Your task to perform on an android device: toggle translation in the chrome app Image 0: 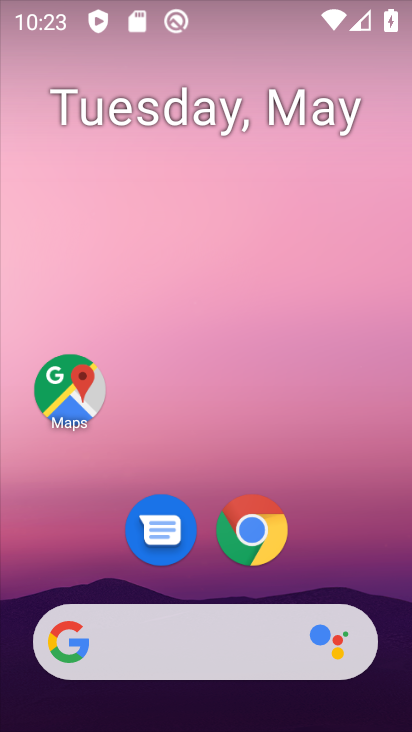
Step 0: drag from (335, 677) to (126, 148)
Your task to perform on an android device: toggle translation in the chrome app Image 1: 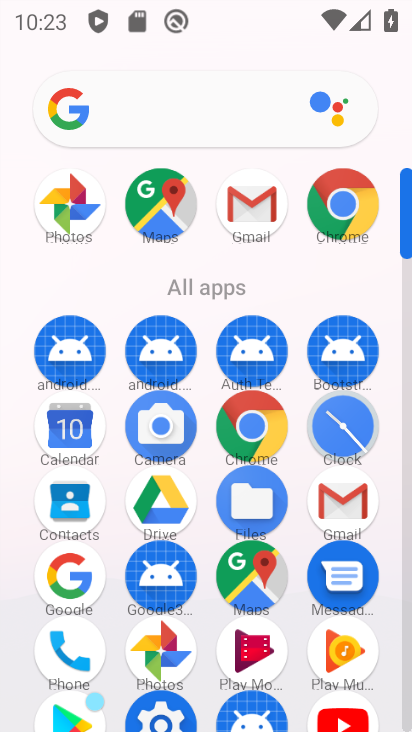
Step 1: click (332, 222)
Your task to perform on an android device: toggle translation in the chrome app Image 2: 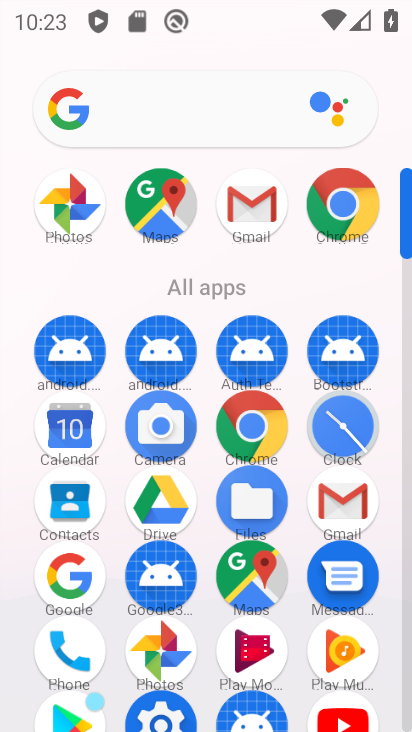
Step 2: click (334, 221)
Your task to perform on an android device: toggle translation in the chrome app Image 3: 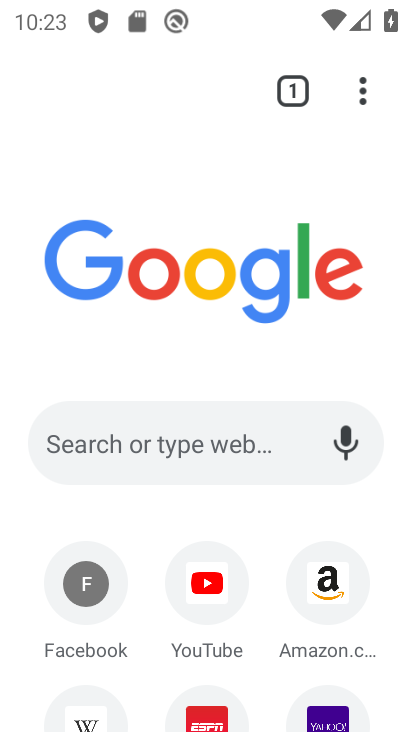
Step 3: click (363, 90)
Your task to perform on an android device: toggle translation in the chrome app Image 4: 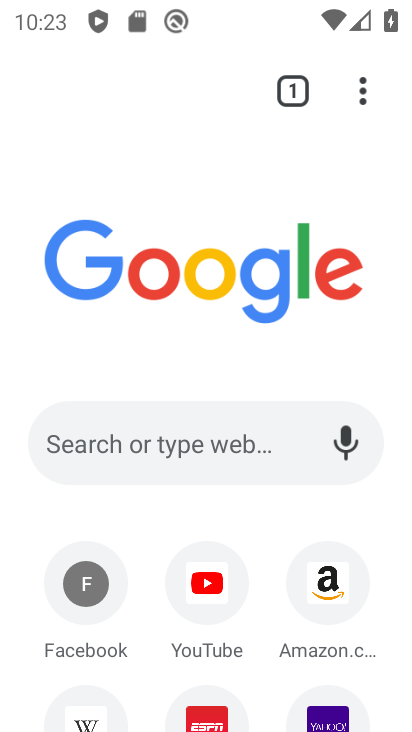
Step 4: click (363, 91)
Your task to perform on an android device: toggle translation in the chrome app Image 5: 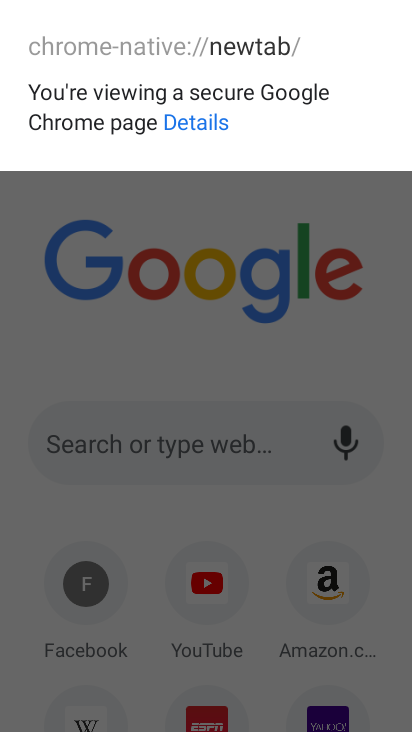
Step 5: click (197, 232)
Your task to perform on an android device: toggle translation in the chrome app Image 6: 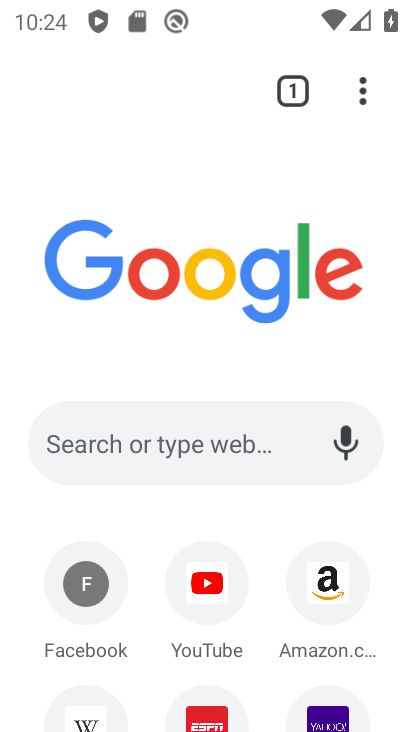
Step 6: drag from (358, 94) to (90, 549)
Your task to perform on an android device: toggle translation in the chrome app Image 7: 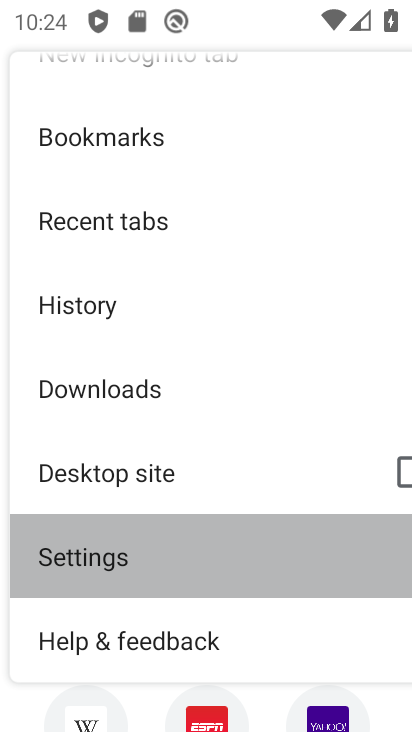
Step 7: click (85, 559)
Your task to perform on an android device: toggle translation in the chrome app Image 8: 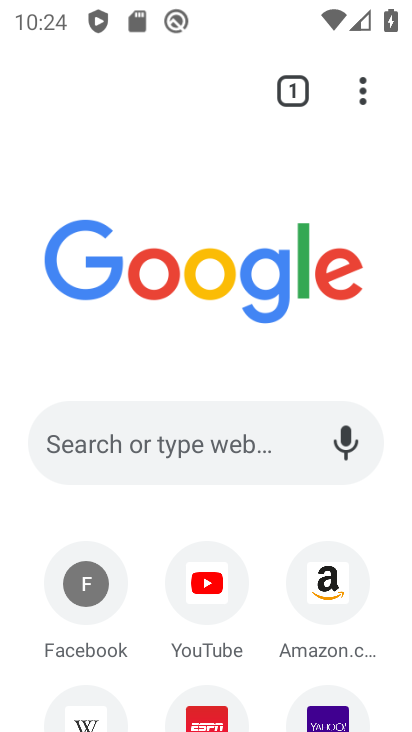
Step 8: click (85, 559)
Your task to perform on an android device: toggle translation in the chrome app Image 9: 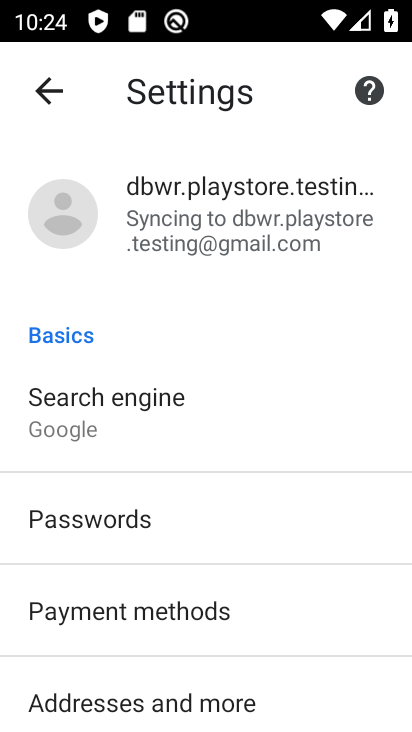
Step 9: drag from (231, 508) to (286, 228)
Your task to perform on an android device: toggle translation in the chrome app Image 10: 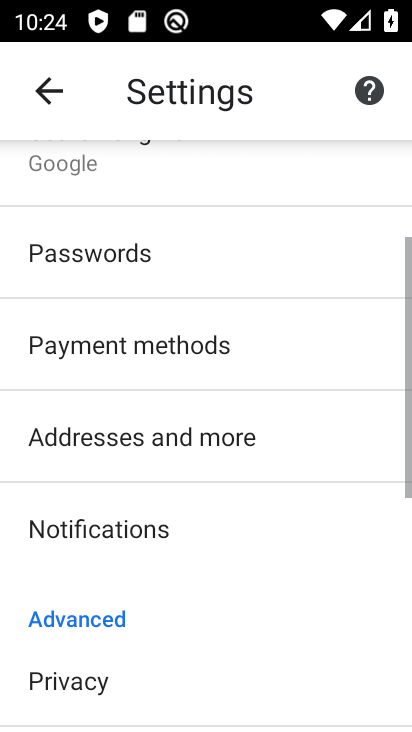
Step 10: drag from (227, 515) to (173, 322)
Your task to perform on an android device: toggle translation in the chrome app Image 11: 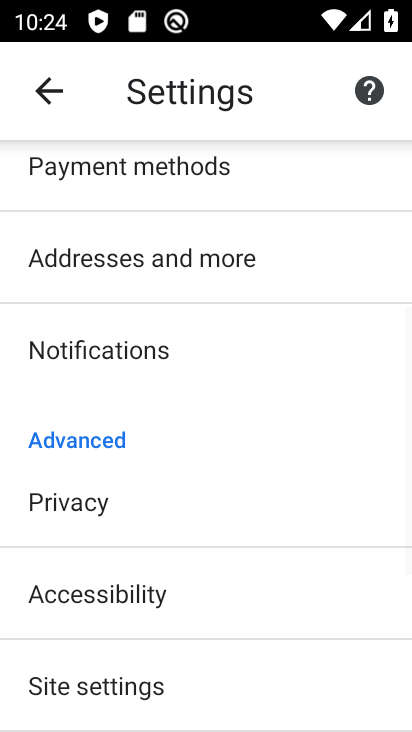
Step 11: drag from (171, 607) to (124, 321)
Your task to perform on an android device: toggle translation in the chrome app Image 12: 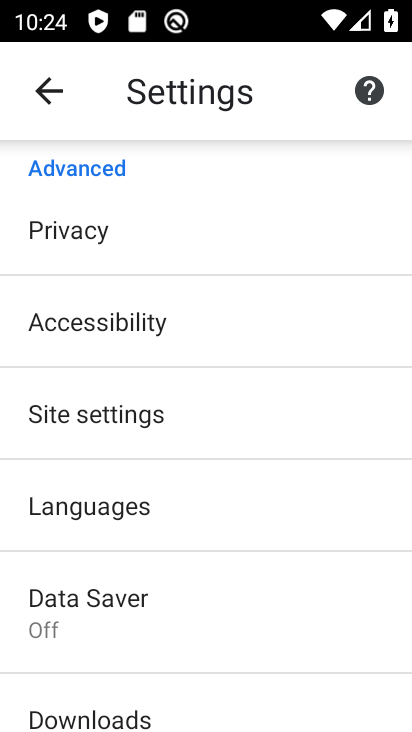
Step 12: click (74, 495)
Your task to perform on an android device: toggle translation in the chrome app Image 13: 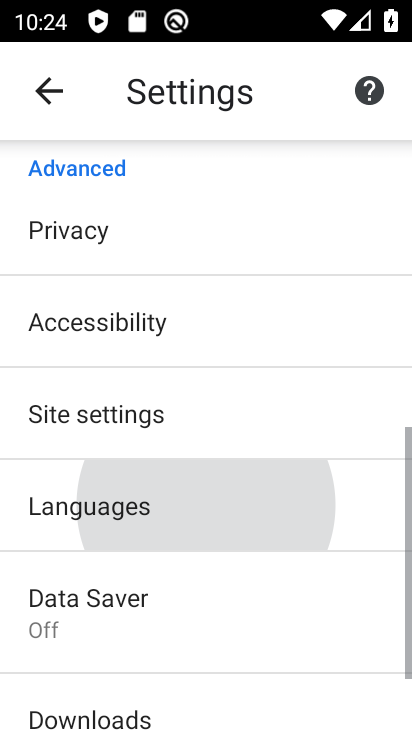
Step 13: click (73, 498)
Your task to perform on an android device: toggle translation in the chrome app Image 14: 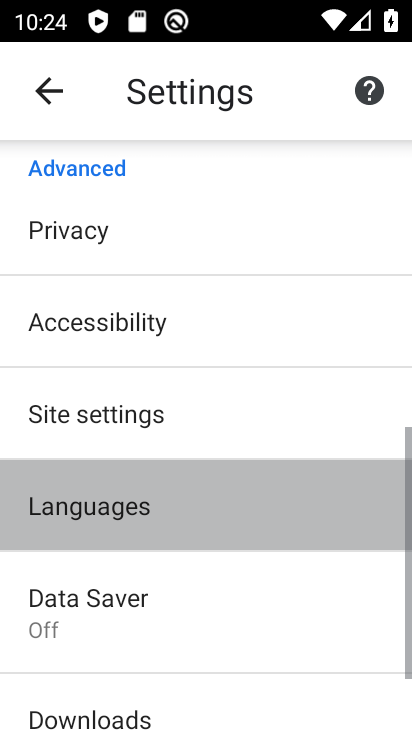
Step 14: click (67, 509)
Your task to perform on an android device: toggle translation in the chrome app Image 15: 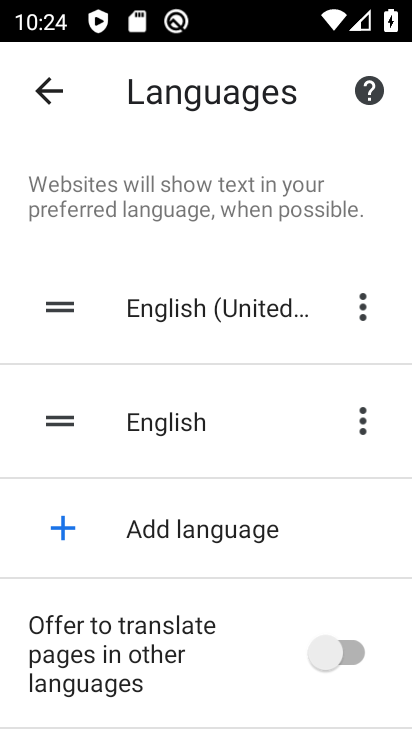
Step 15: click (312, 658)
Your task to perform on an android device: toggle translation in the chrome app Image 16: 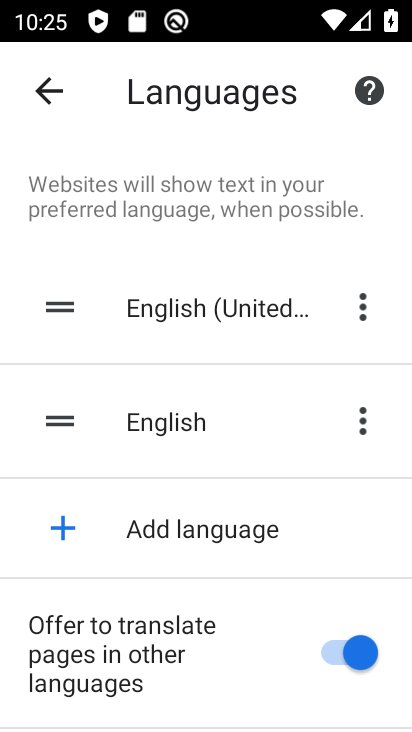
Step 16: press back button
Your task to perform on an android device: toggle translation in the chrome app Image 17: 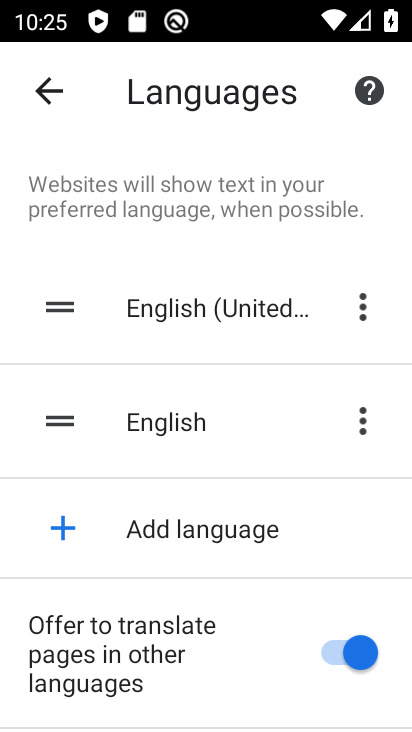
Step 17: press back button
Your task to perform on an android device: toggle translation in the chrome app Image 18: 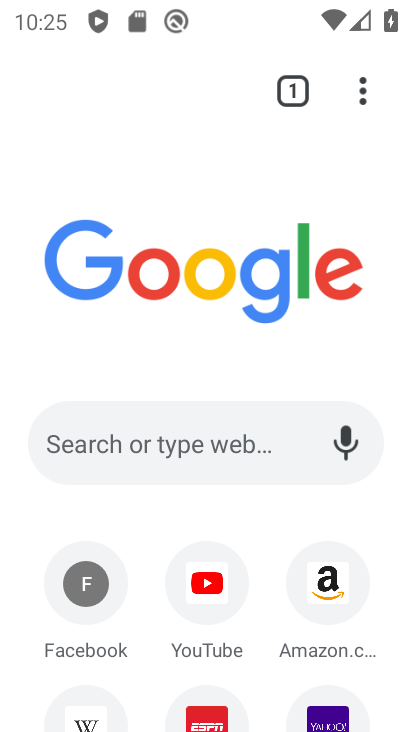
Step 18: click (360, 96)
Your task to perform on an android device: toggle translation in the chrome app Image 19: 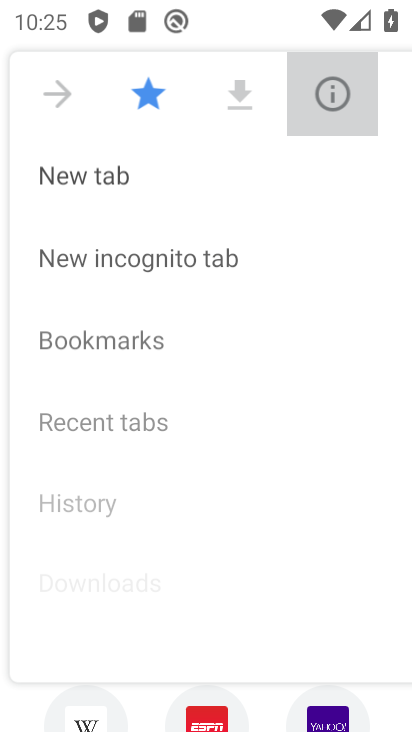
Step 19: click (360, 96)
Your task to perform on an android device: toggle translation in the chrome app Image 20: 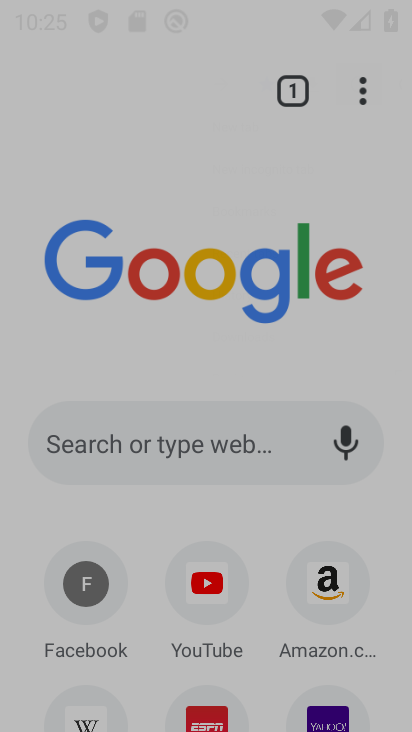
Step 20: click (360, 96)
Your task to perform on an android device: toggle translation in the chrome app Image 21: 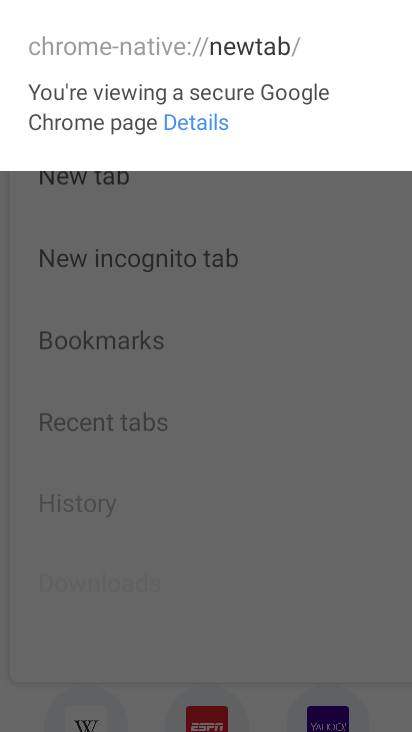
Step 21: click (360, 96)
Your task to perform on an android device: toggle translation in the chrome app Image 22: 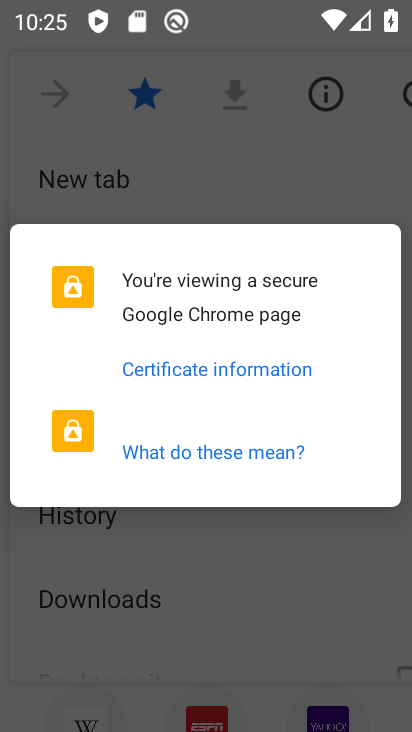
Step 22: click (323, 174)
Your task to perform on an android device: toggle translation in the chrome app Image 23: 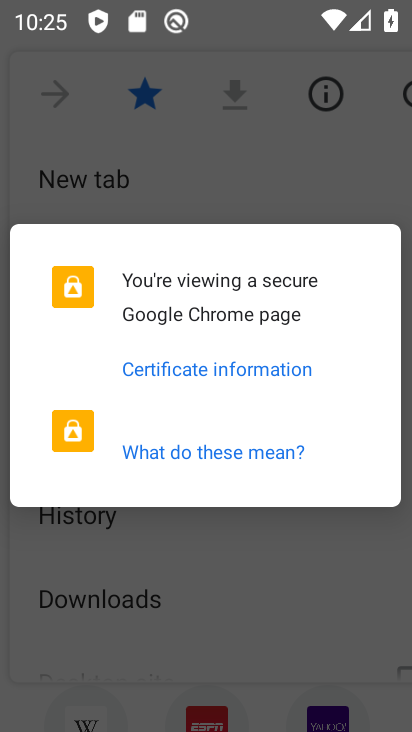
Step 23: click (323, 174)
Your task to perform on an android device: toggle translation in the chrome app Image 24: 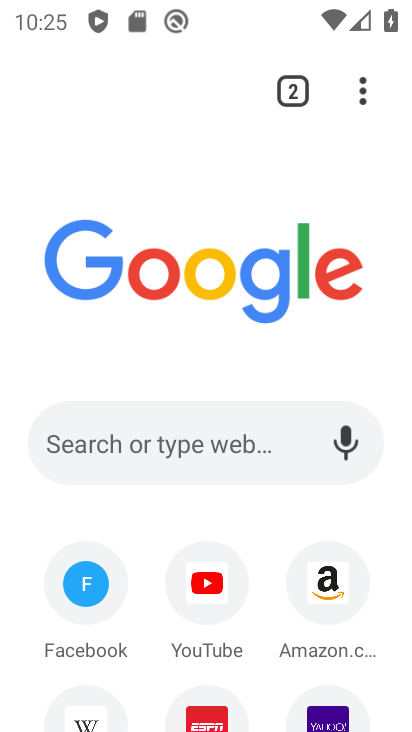
Step 24: drag from (365, 95) to (94, 567)
Your task to perform on an android device: toggle translation in the chrome app Image 25: 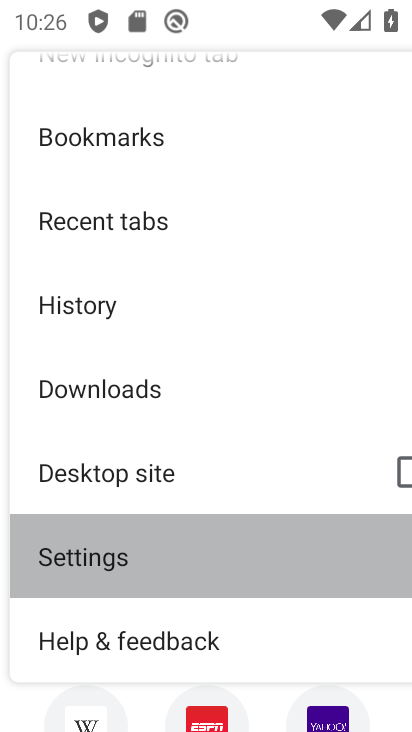
Step 25: click (96, 556)
Your task to perform on an android device: toggle translation in the chrome app Image 26: 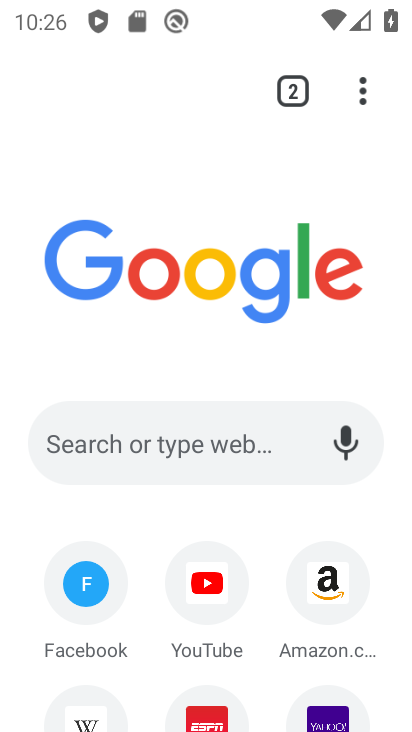
Step 26: click (96, 556)
Your task to perform on an android device: toggle translation in the chrome app Image 27: 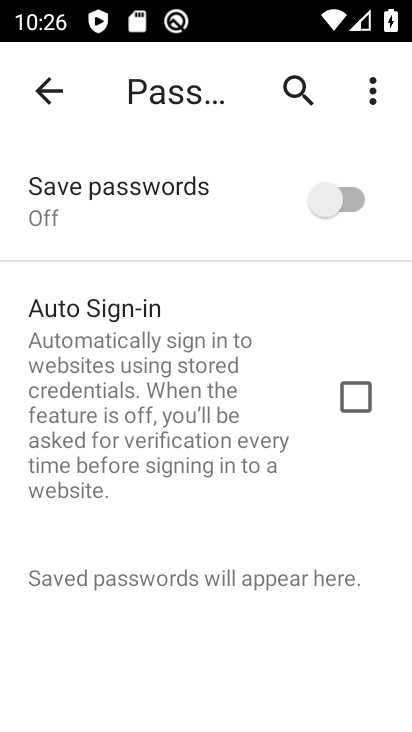
Step 27: click (139, 570)
Your task to perform on an android device: toggle translation in the chrome app Image 28: 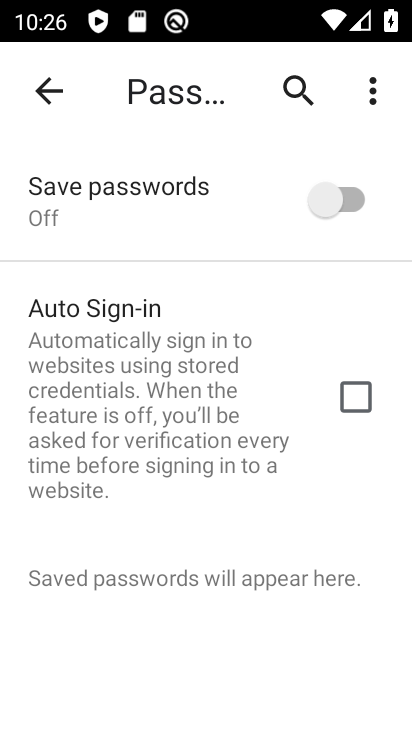
Step 28: click (41, 87)
Your task to perform on an android device: toggle translation in the chrome app Image 29: 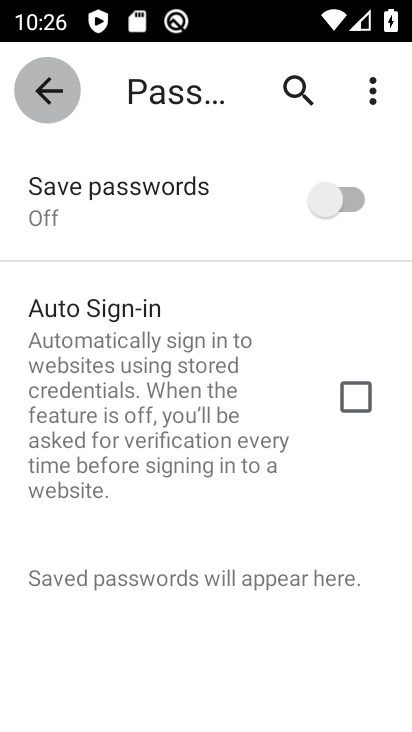
Step 29: click (42, 89)
Your task to perform on an android device: toggle translation in the chrome app Image 30: 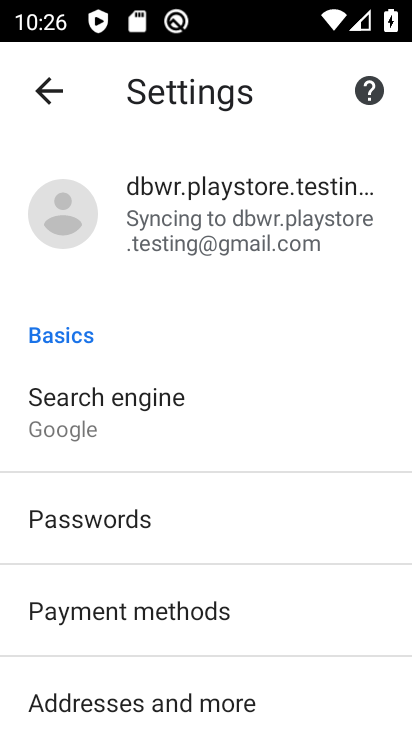
Step 30: drag from (171, 534) to (239, 151)
Your task to perform on an android device: toggle translation in the chrome app Image 31: 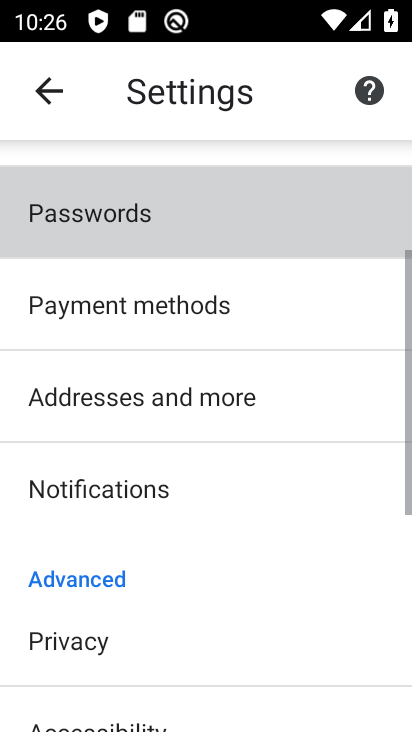
Step 31: drag from (208, 485) to (204, 164)
Your task to perform on an android device: toggle translation in the chrome app Image 32: 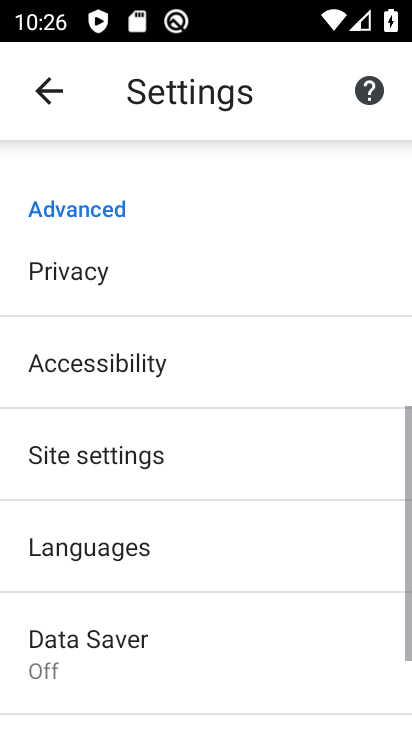
Step 32: drag from (186, 493) to (252, 56)
Your task to perform on an android device: toggle translation in the chrome app Image 33: 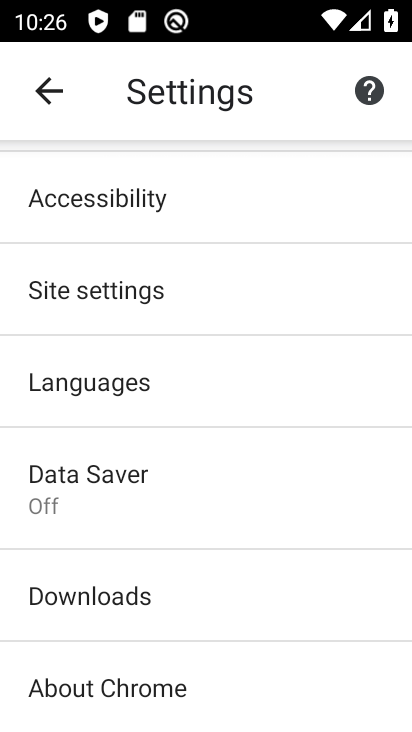
Step 33: click (66, 384)
Your task to perform on an android device: toggle translation in the chrome app Image 34: 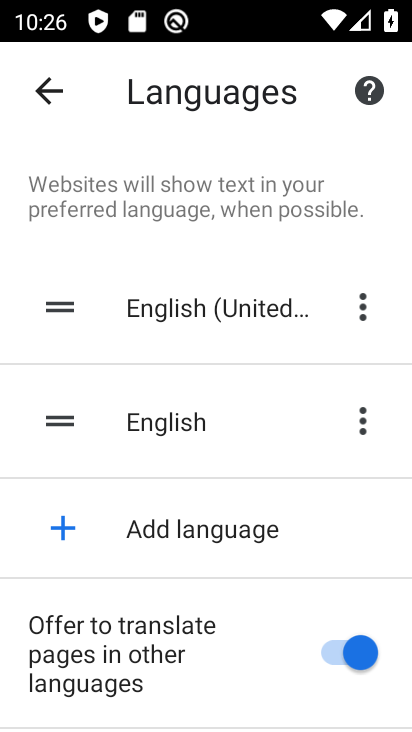
Step 34: click (347, 653)
Your task to perform on an android device: toggle translation in the chrome app Image 35: 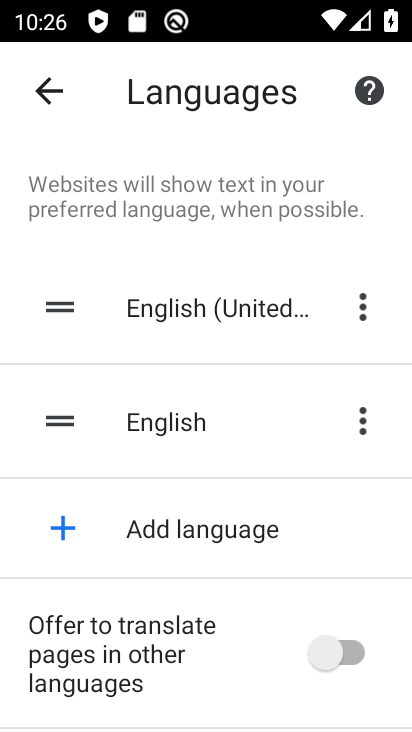
Step 35: task complete